Your task to perform on an android device: Open the map Image 0: 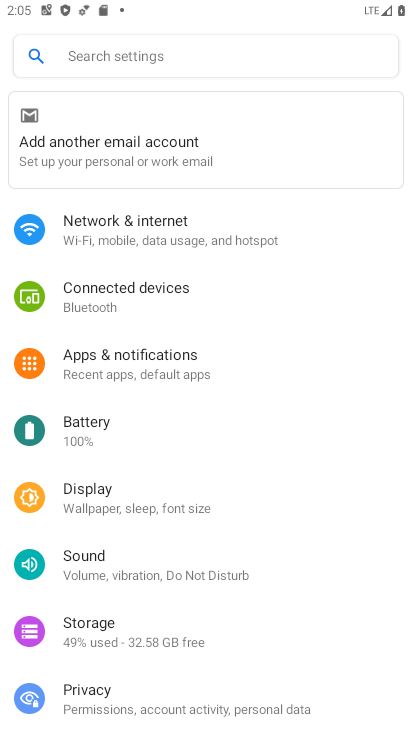
Step 0: press back button
Your task to perform on an android device: Open the map Image 1: 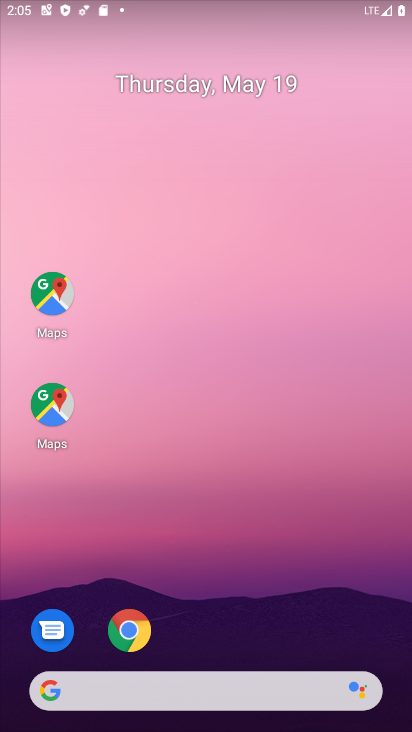
Step 1: drag from (252, 534) to (204, 29)
Your task to perform on an android device: Open the map Image 2: 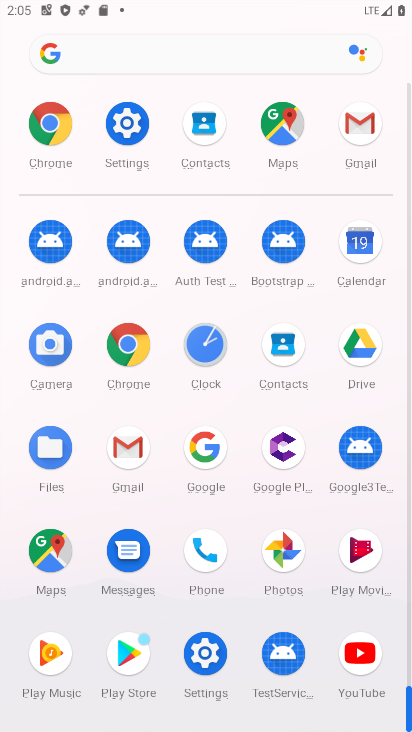
Step 2: drag from (1, 520) to (4, 195)
Your task to perform on an android device: Open the map Image 3: 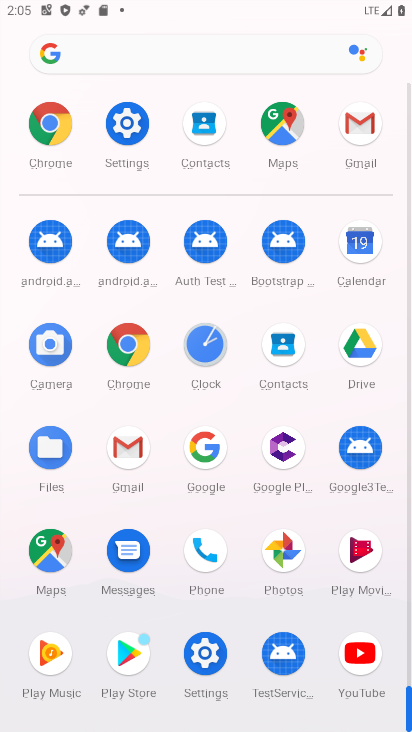
Step 3: click (45, 551)
Your task to perform on an android device: Open the map Image 4: 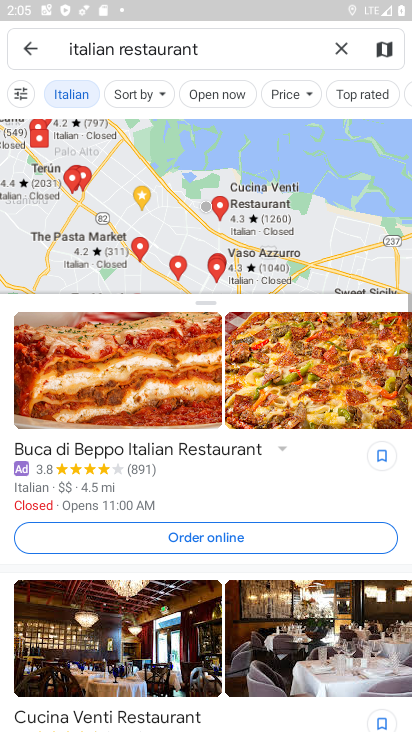
Step 4: click (29, 51)
Your task to perform on an android device: Open the map Image 5: 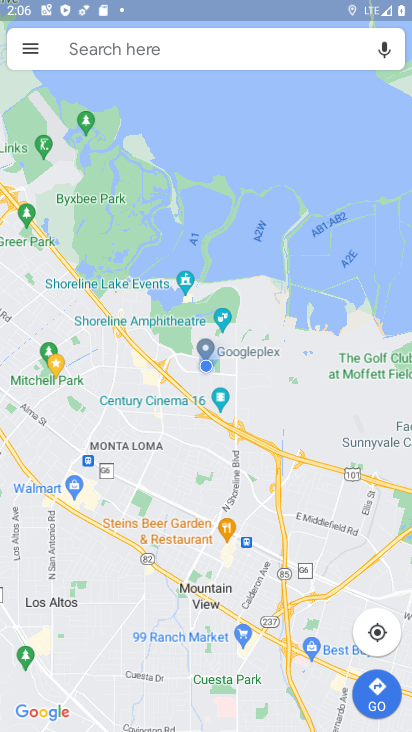
Step 5: task complete